Your task to perform on an android device: Search for pizza restaurants on Maps Image 0: 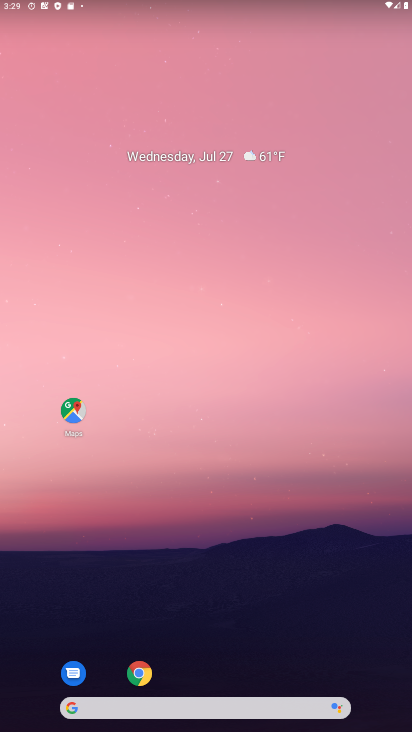
Step 0: click (66, 400)
Your task to perform on an android device: Search for pizza restaurants on Maps Image 1: 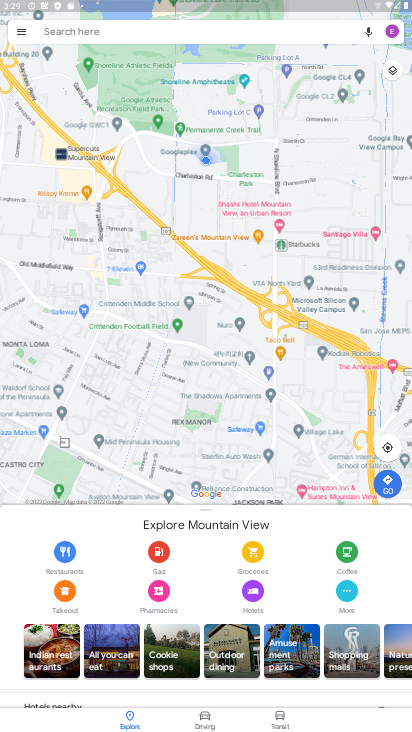
Step 1: click (92, 30)
Your task to perform on an android device: Search for pizza restaurants on Maps Image 2: 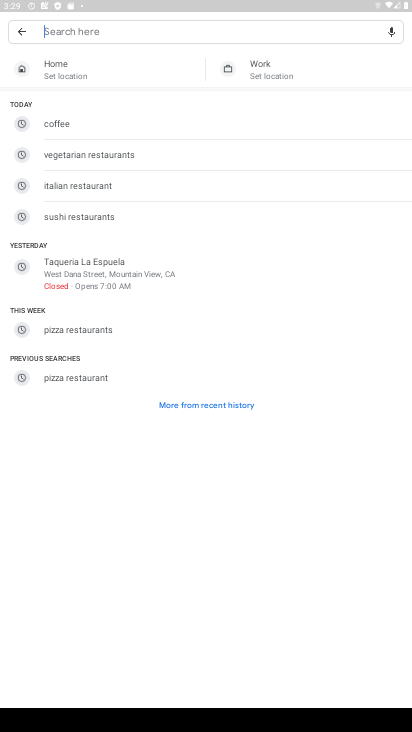
Step 2: click (54, 378)
Your task to perform on an android device: Search for pizza restaurants on Maps Image 3: 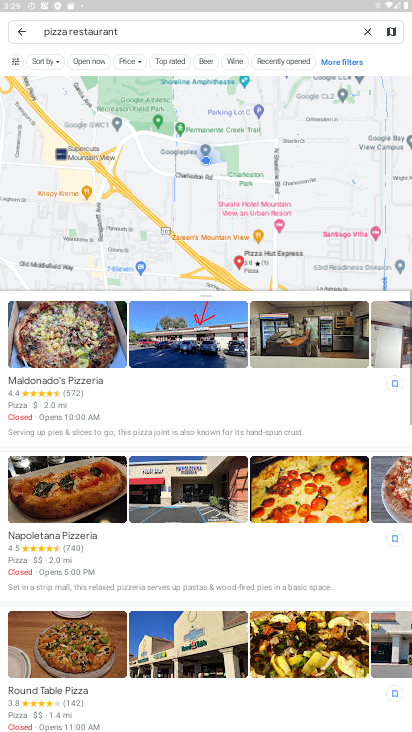
Step 3: task complete